Your task to perform on an android device: Open sound settings Image 0: 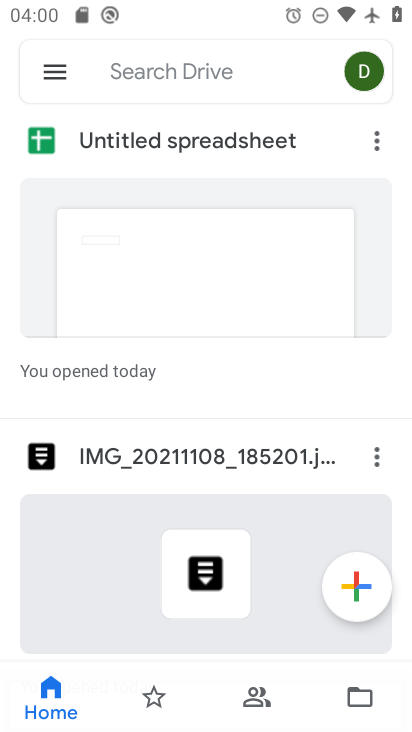
Step 0: press home button
Your task to perform on an android device: Open sound settings Image 1: 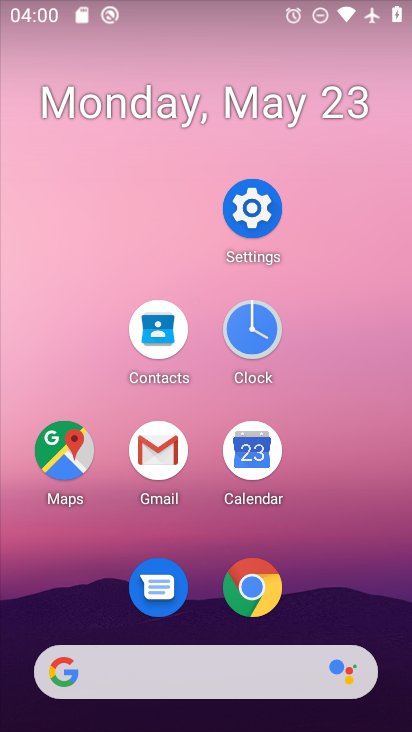
Step 1: click (252, 229)
Your task to perform on an android device: Open sound settings Image 2: 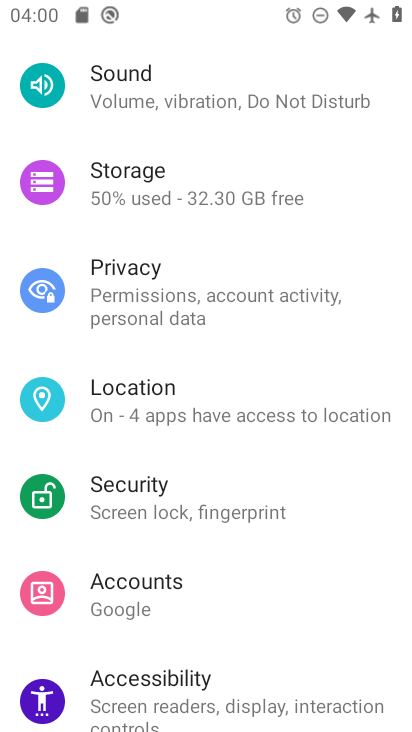
Step 2: click (180, 67)
Your task to perform on an android device: Open sound settings Image 3: 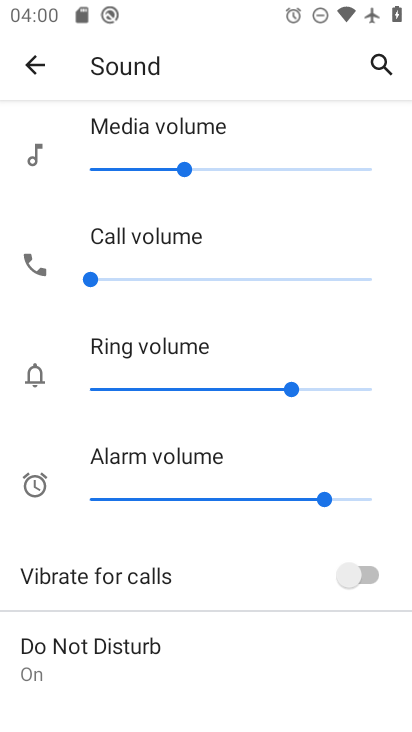
Step 3: task complete